Your task to perform on an android device: add a contact in the contacts app Image 0: 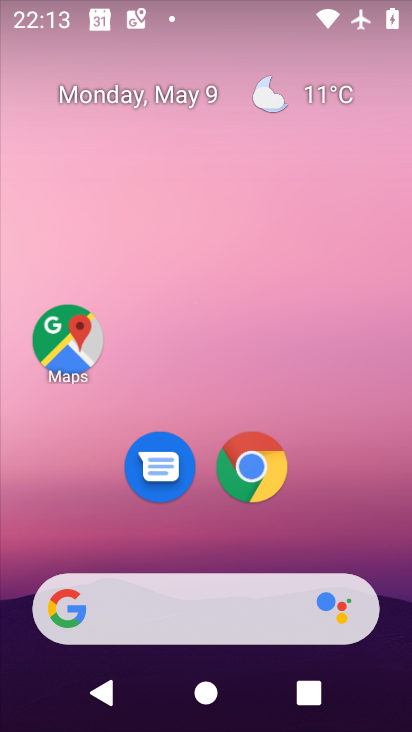
Step 0: drag from (313, 460) to (306, 185)
Your task to perform on an android device: add a contact in the contacts app Image 1: 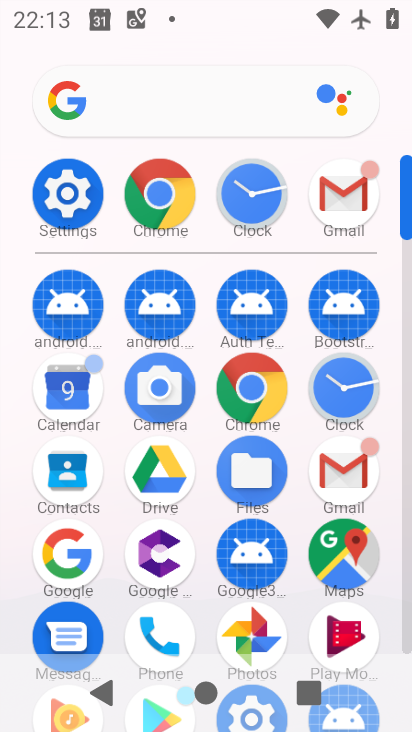
Step 1: drag from (211, 607) to (236, 283)
Your task to perform on an android device: add a contact in the contacts app Image 2: 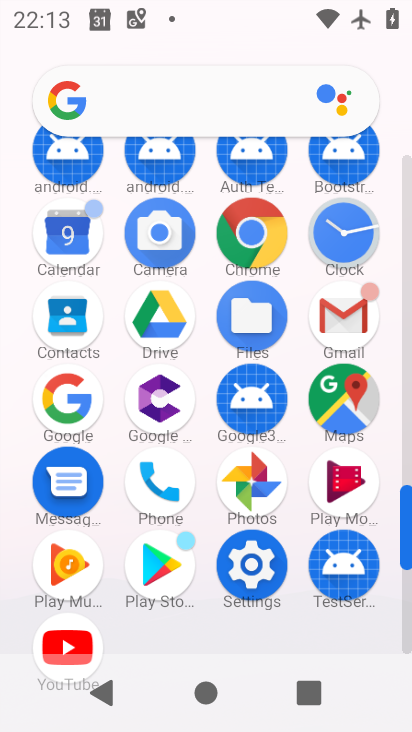
Step 2: click (150, 490)
Your task to perform on an android device: add a contact in the contacts app Image 3: 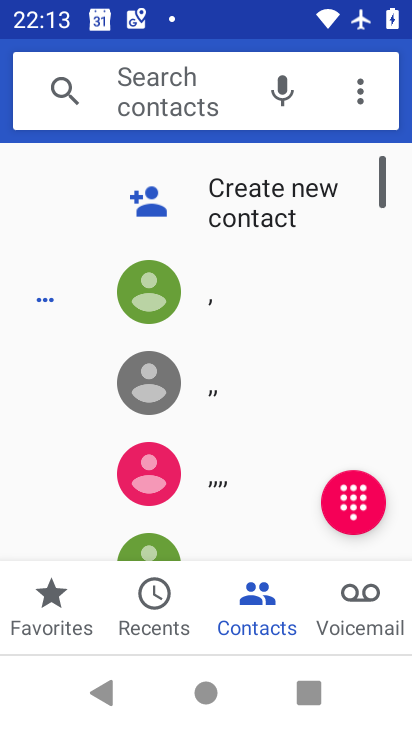
Step 3: click (236, 176)
Your task to perform on an android device: add a contact in the contacts app Image 4: 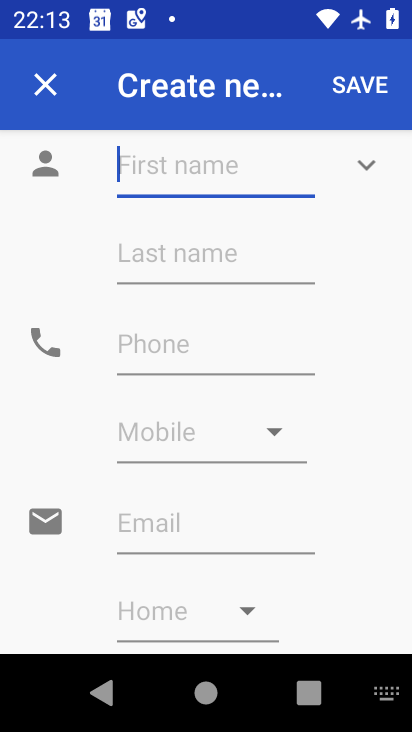
Step 4: click (191, 163)
Your task to perform on an android device: add a contact in the contacts app Image 5: 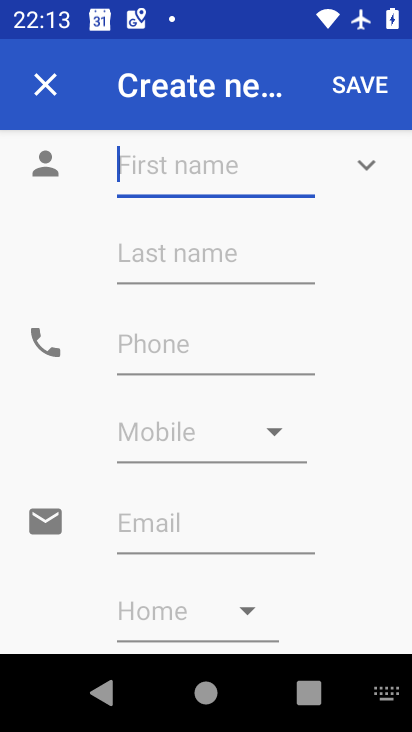
Step 5: type "hghghghghghg"
Your task to perform on an android device: add a contact in the contacts app Image 6: 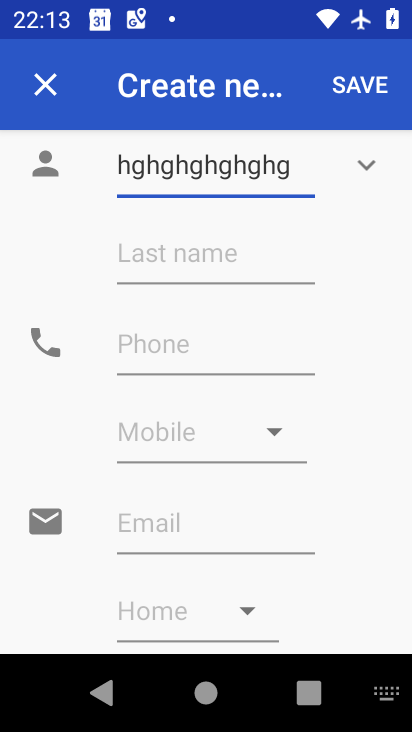
Step 6: click (125, 361)
Your task to perform on an android device: add a contact in the contacts app Image 7: 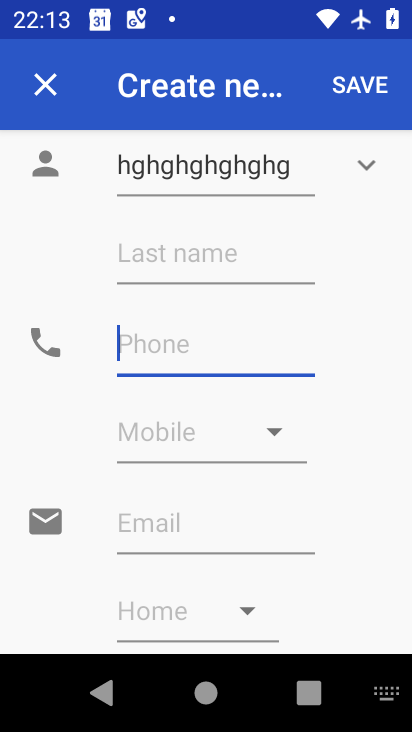
Step 7: type "09876543212345"
Your task to perform on an android device: add a contact in the contacts app Image 8: 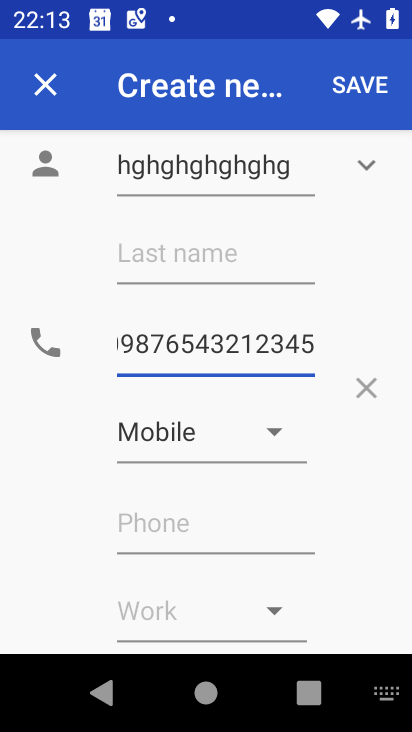
Step 8: click (336, 73)
Your task to perform on an android device: add a contact in the contacts app Image 9: 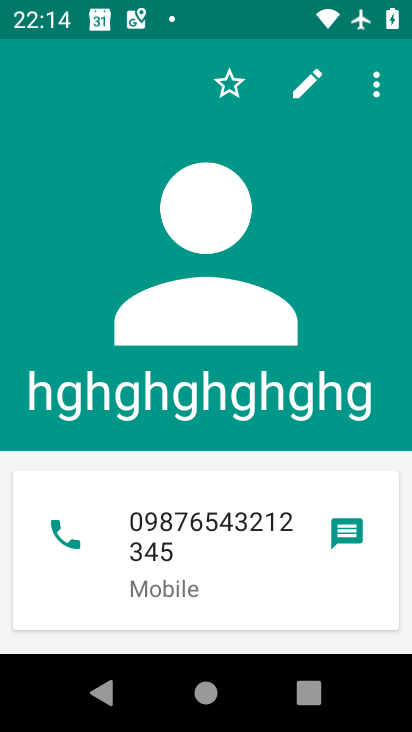
Step 9: task complete